Your task to perform on an android device: star an email in the gmail app Image 0: 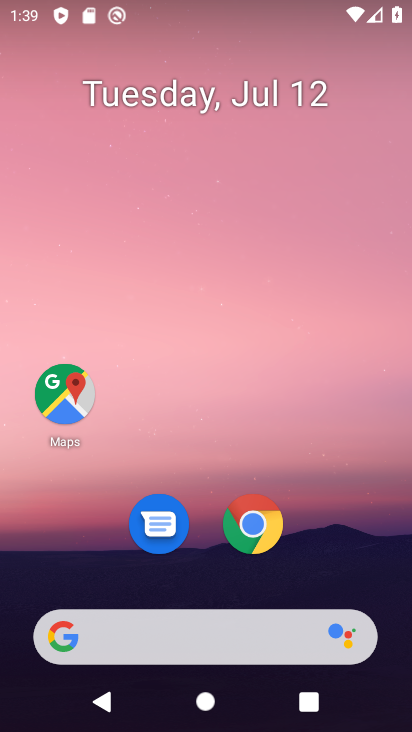
Step 0: drag from (325, 451) to (364, 11)
Your task to perform on an android device: star an email in the gmail app Image 1: 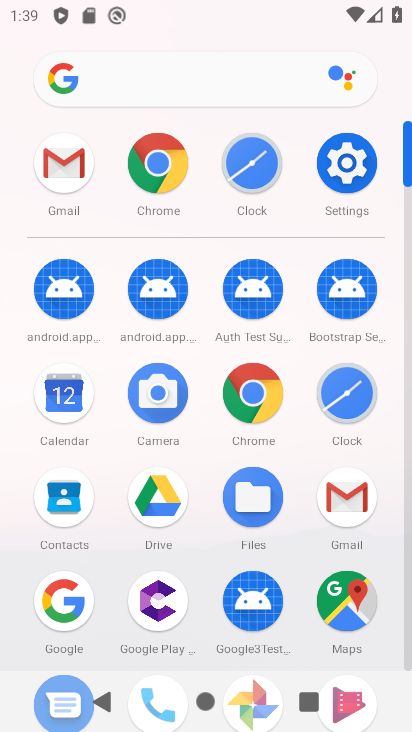
Step 1: click (64, 165)
Your task to perform on an android device: star an email in the gmail app Image 2: 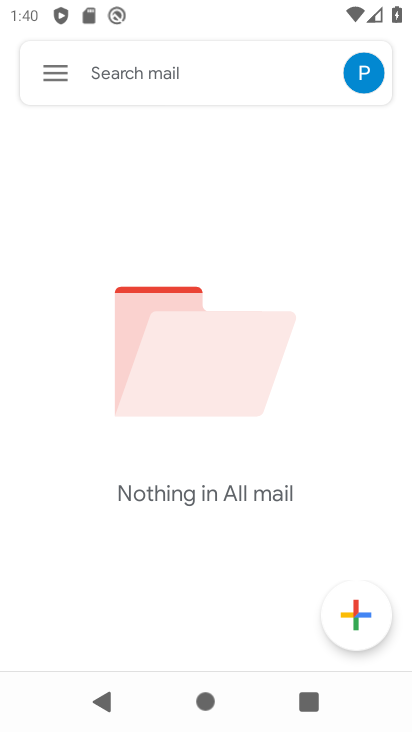
Step 2: task complete